Your task to perform on an android device: turn notification dots on Image 0: 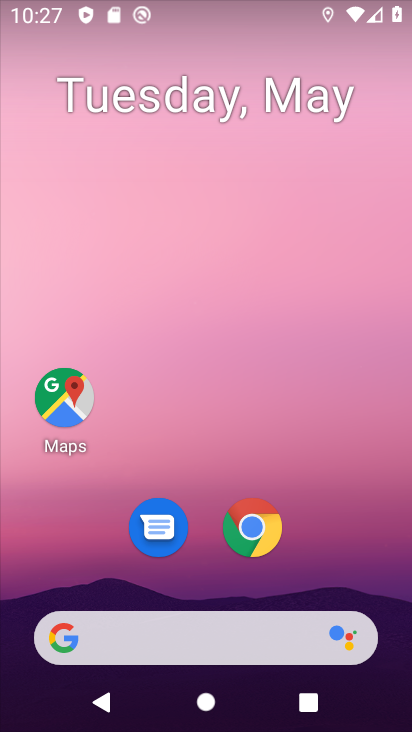
Step 0: click (237, 19)
Your task to perform on an android device: turn notification dots on Image 1: 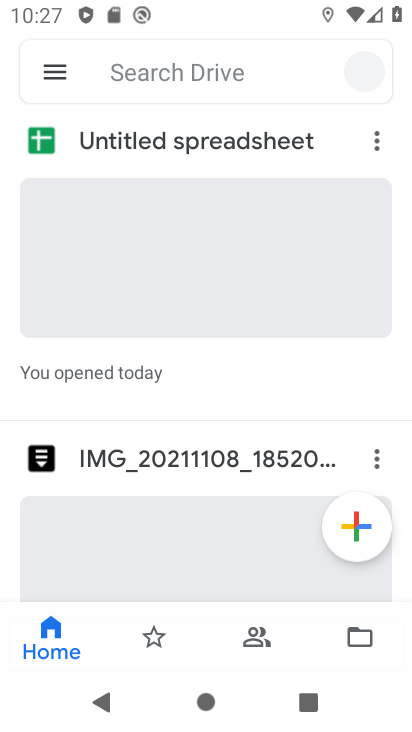
Step 1: drag from (189, 529) to (213, 31)
Your task to perform on an android device: turn notification dots on Image 2: 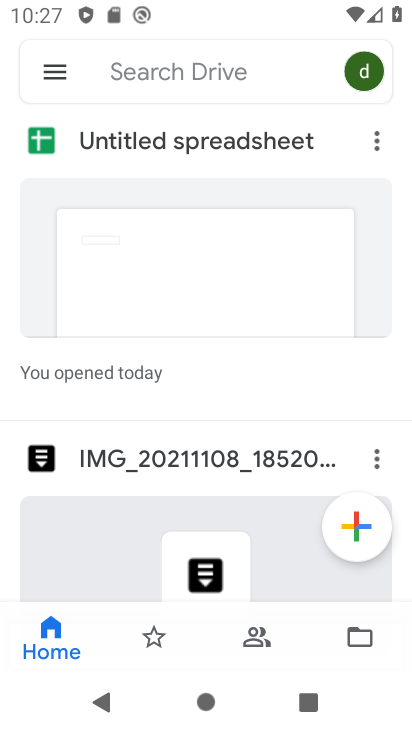
Step 2: press home button
Your task to perform on an android device: turn notification dots on Image 3: 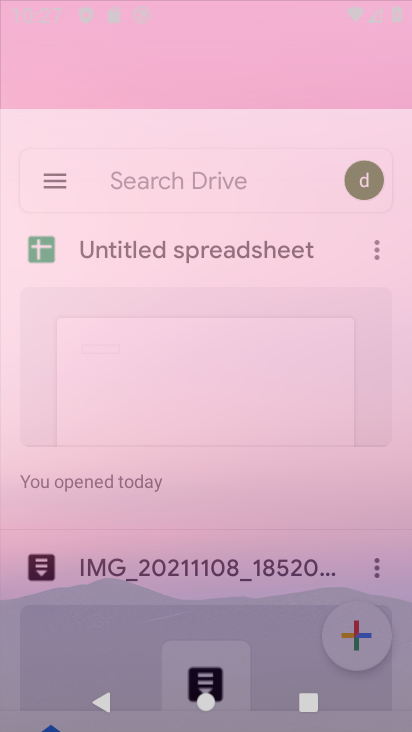
Step 3: drag from (109, 549) to (240, 25)
Your task to perform on an android device: turn notification dots on Image 4: 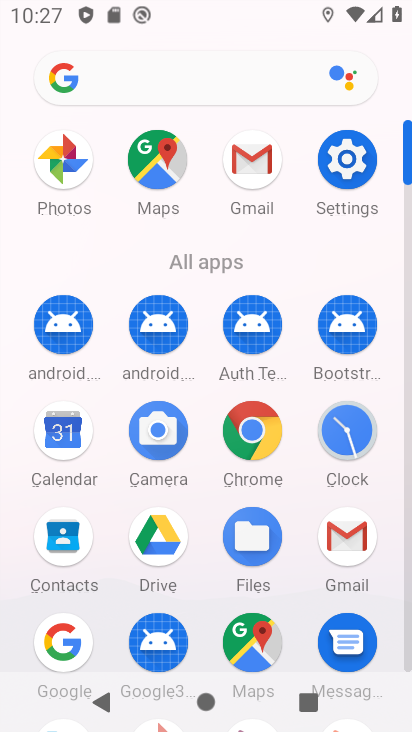
Step 4: click (355, 141)
Your task to perform on an android device: turn notification dots on Image 5: 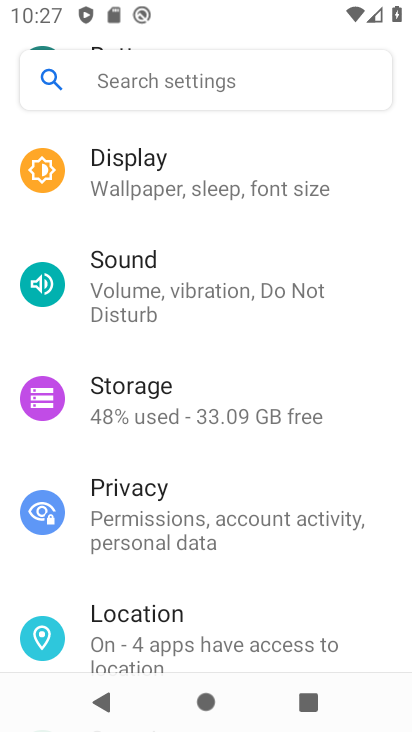
Step 5: drag from (234, 204) to (250, 524)
Your task to perform on an android device: turn notification dots on Image 6: 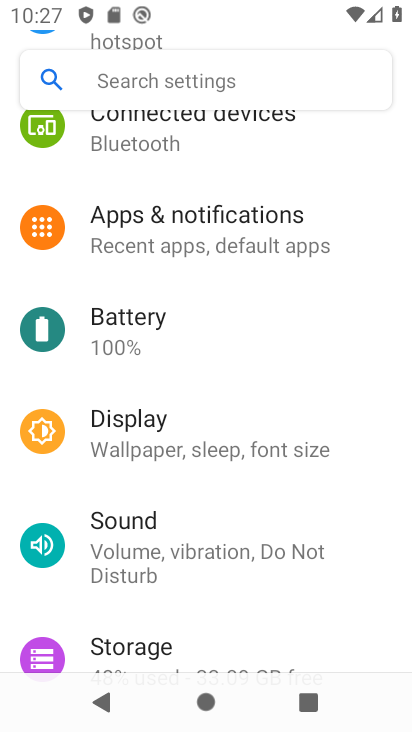
Step 6: click (242, 225)
Your task to perform on an android device: turn notification dots on Image 7: 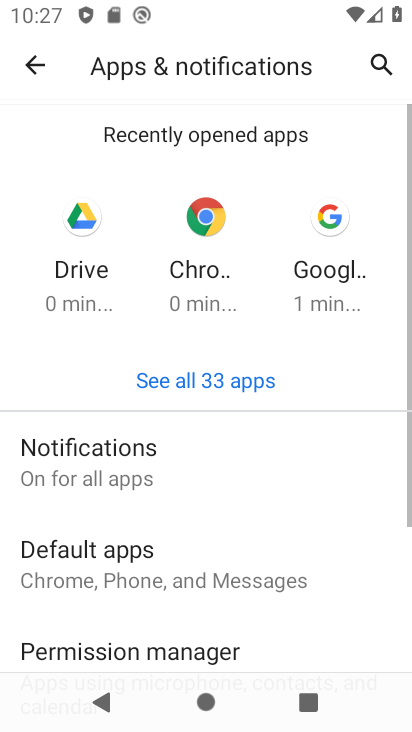
Step 7: click (157, 454)
Your task to perform on an android device: turn notification dots on Image 8: 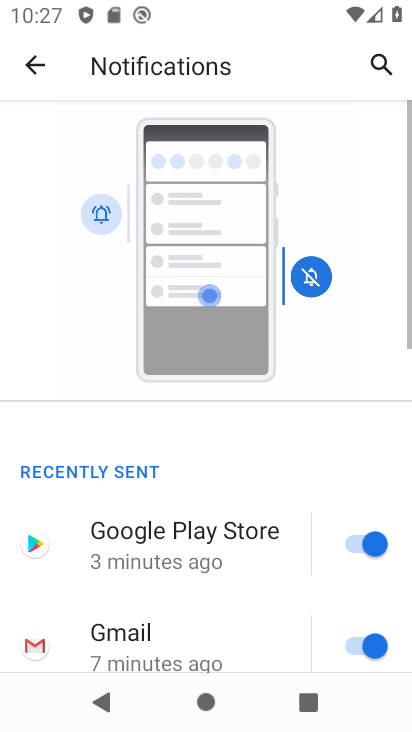
Step 8: drag from (225, 540) to (256, 200)
Your task to perform on an android device: turn notification dots on Image 9: 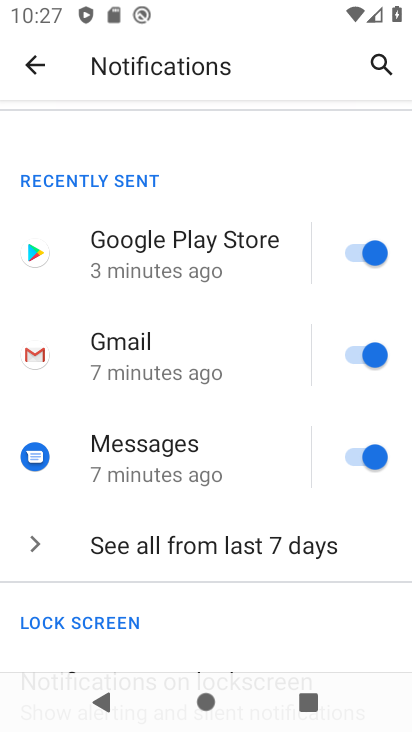
Step 9: drag from (243, 549) to (230, 207)
Your task to perform on an android device: turn notification dots on Image 10: 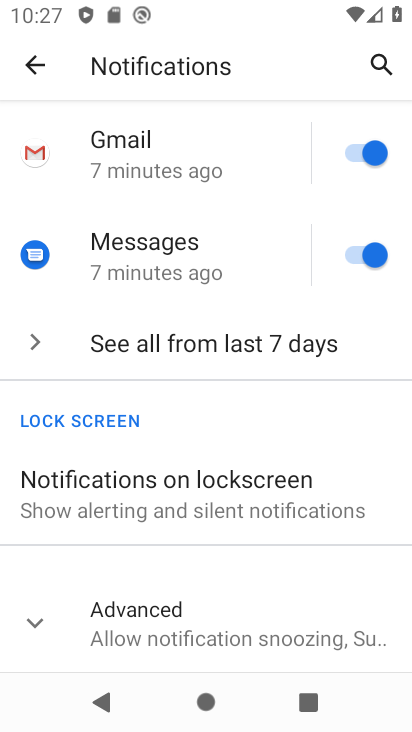
Step 10: click (209, 609)
Your task to perform on an android device: turn notification dots on Image 11: 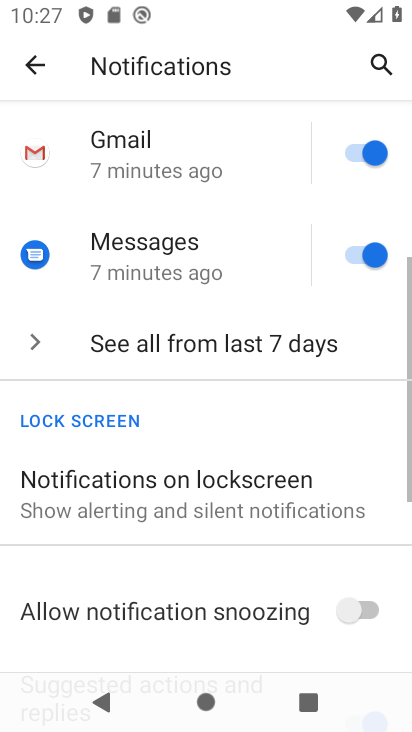
Step 11: task complete